Your task to perform on an android device: uninstall "Expedia: Hotels, Flights & Car" Image 0: 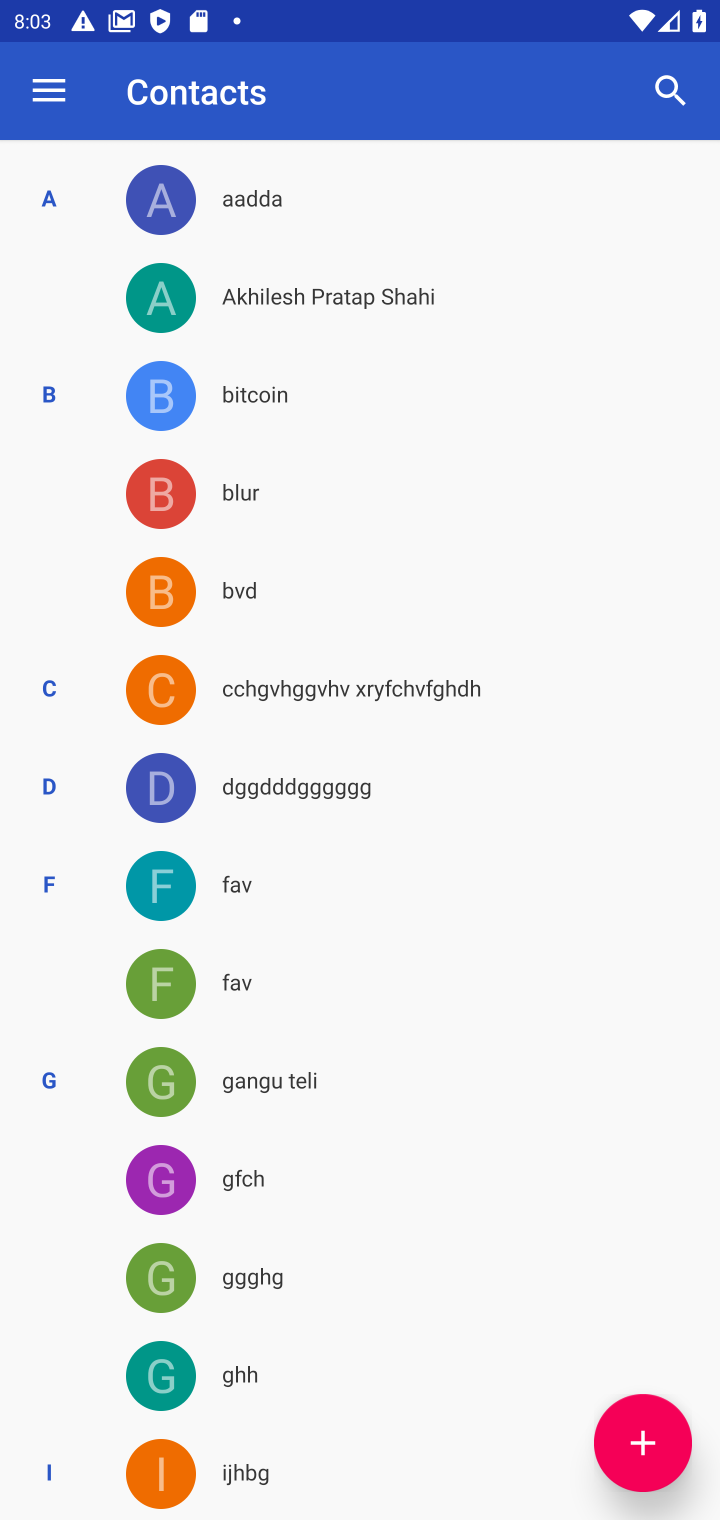
Step 0: press home button
Your task to perform on an android device: uninstall "Expedia: Hotels, Flights & Car" Image 1: 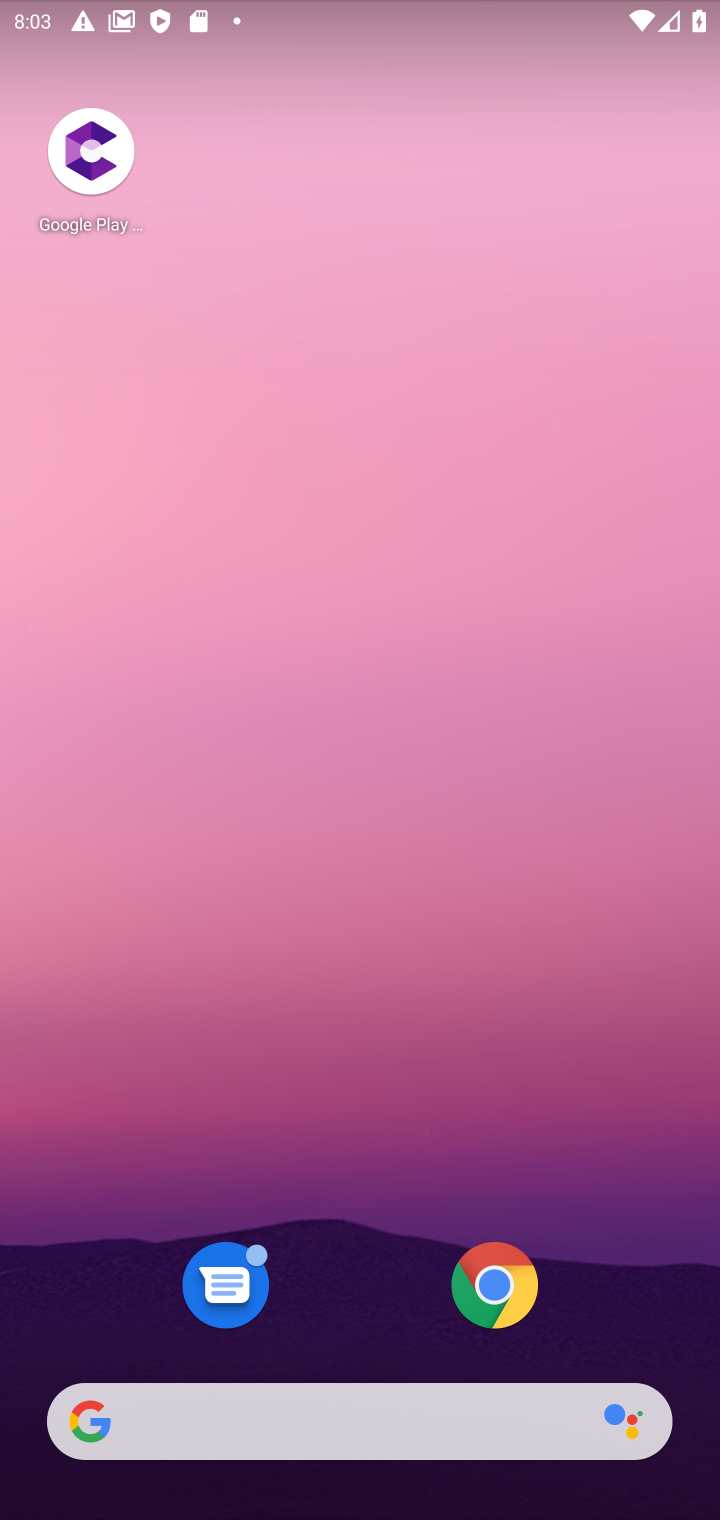
Step 1: drag from (337, 1403) to (165, 11)
Your task to perform on an android device: uninstall "Expedia: Hotels, Flights & Car" Image 2: 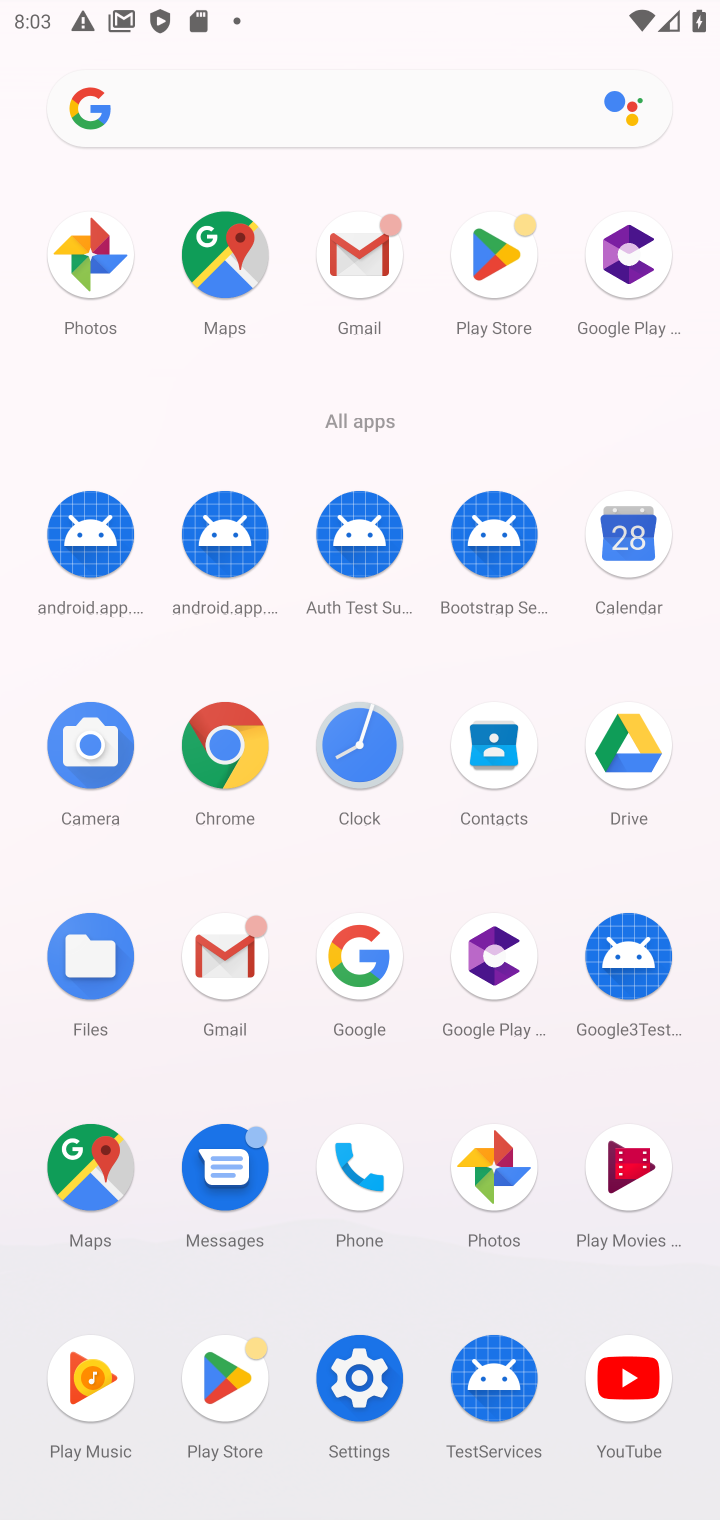
Step 2: click (228, 1356)
Your task to perform on an android device: uninstall "Expedia: Hotels, Flights & Car" Image 3: 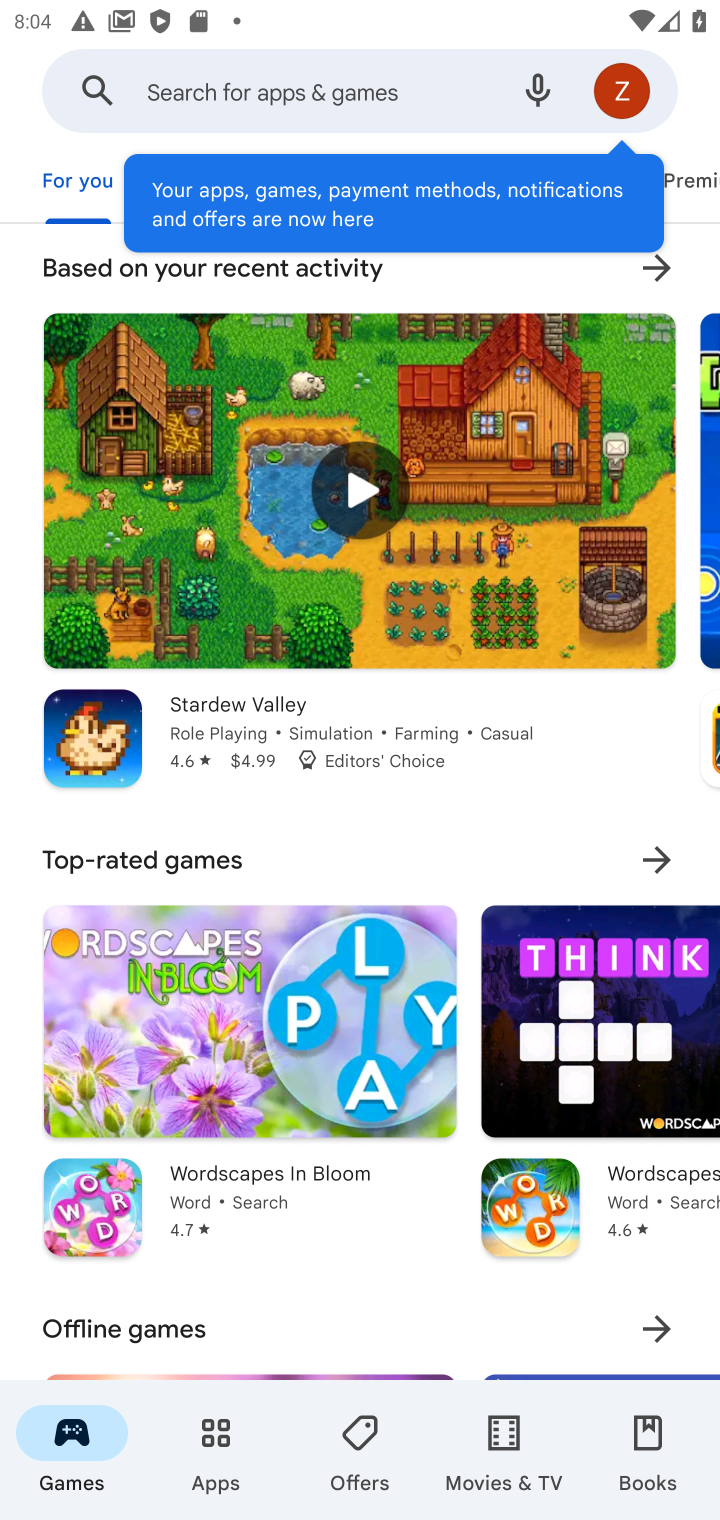
Step 3: click (342, 108)
Your task to perform on an android device: uninstall "Expedia: Hotels, Flights & Car" Image 4: 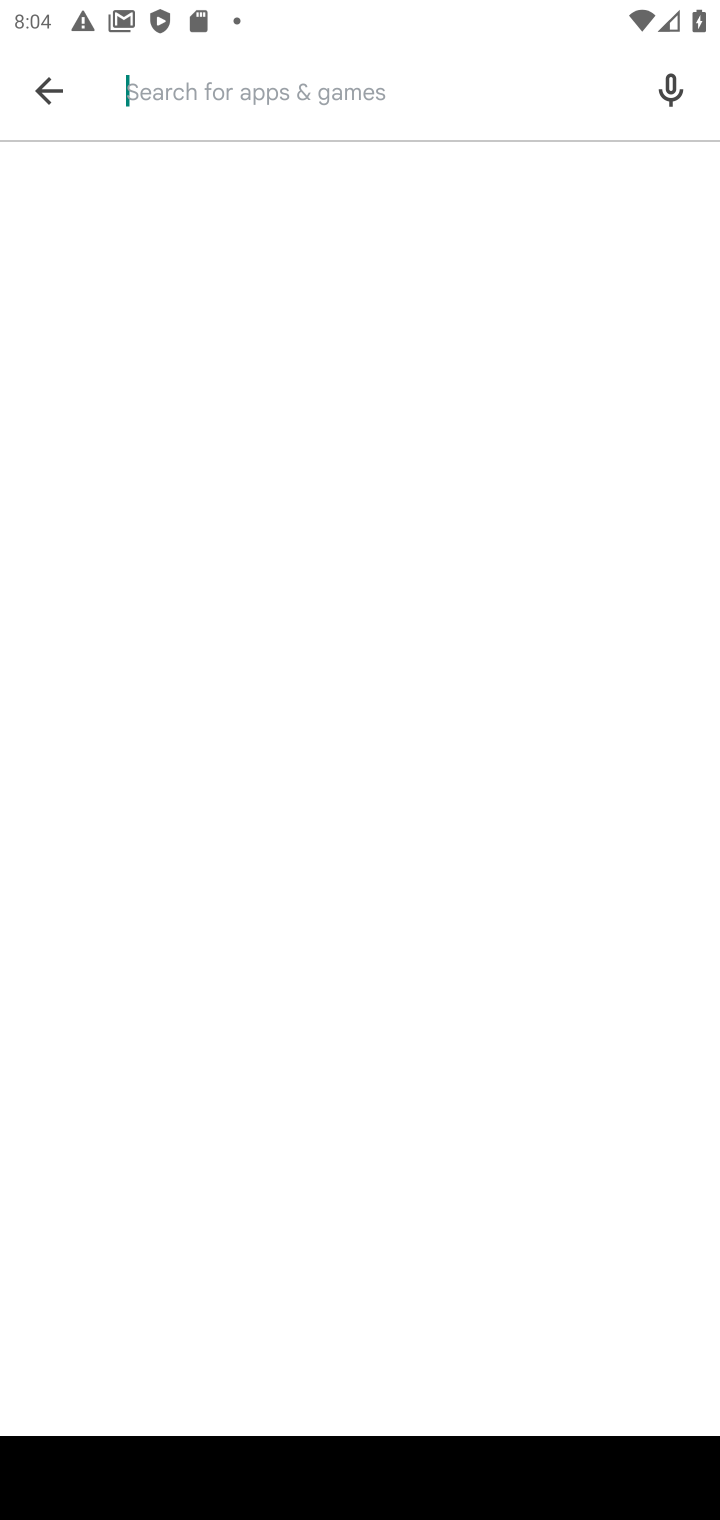
Step 4: type "Expedia: Hotels, Flights & Car"
Your task to perform on an android device: uninstall "Expedia: Hotels, Flights & Car" Image 5: 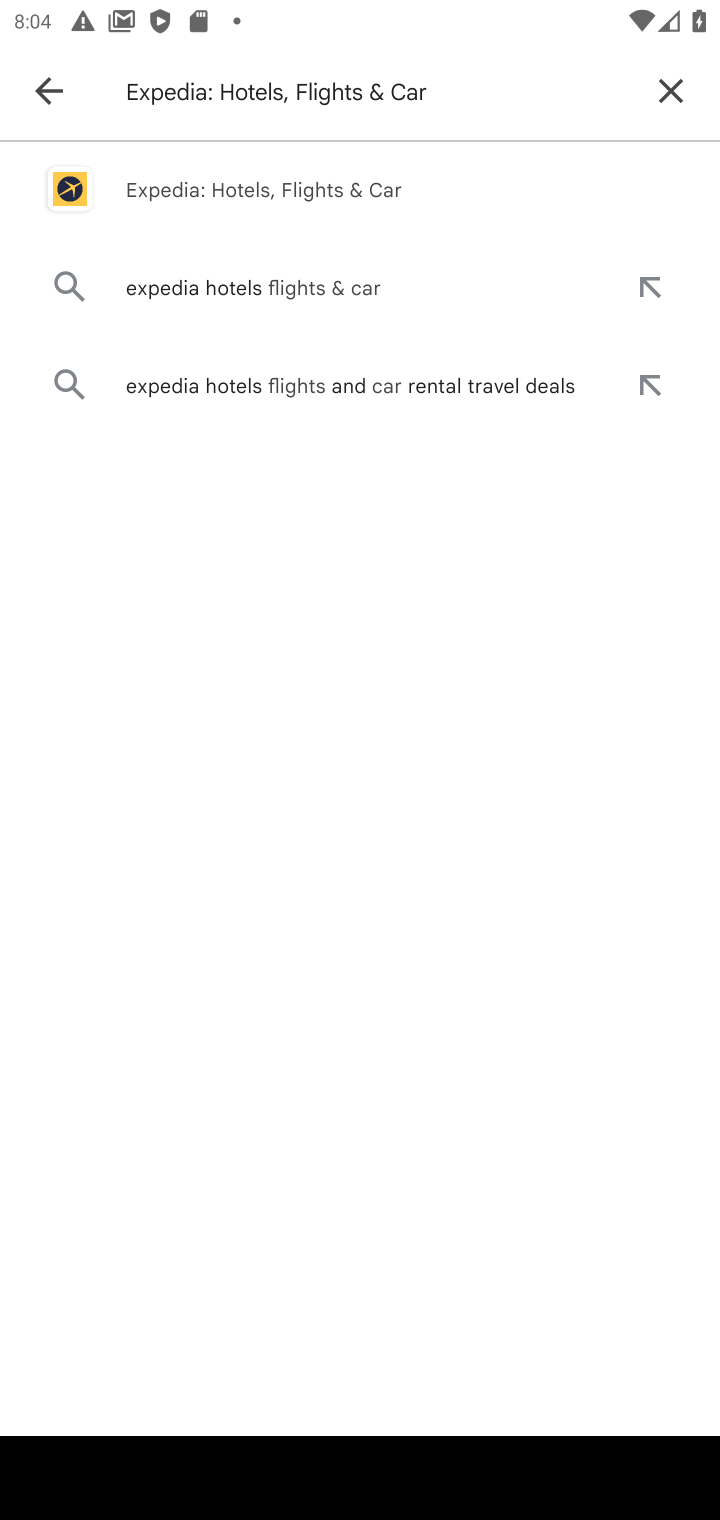
Step 5: click (213, 203)
Your task to perform on an android device: uninstall "Expedia: Hotels, Flights & Car" Image 6: 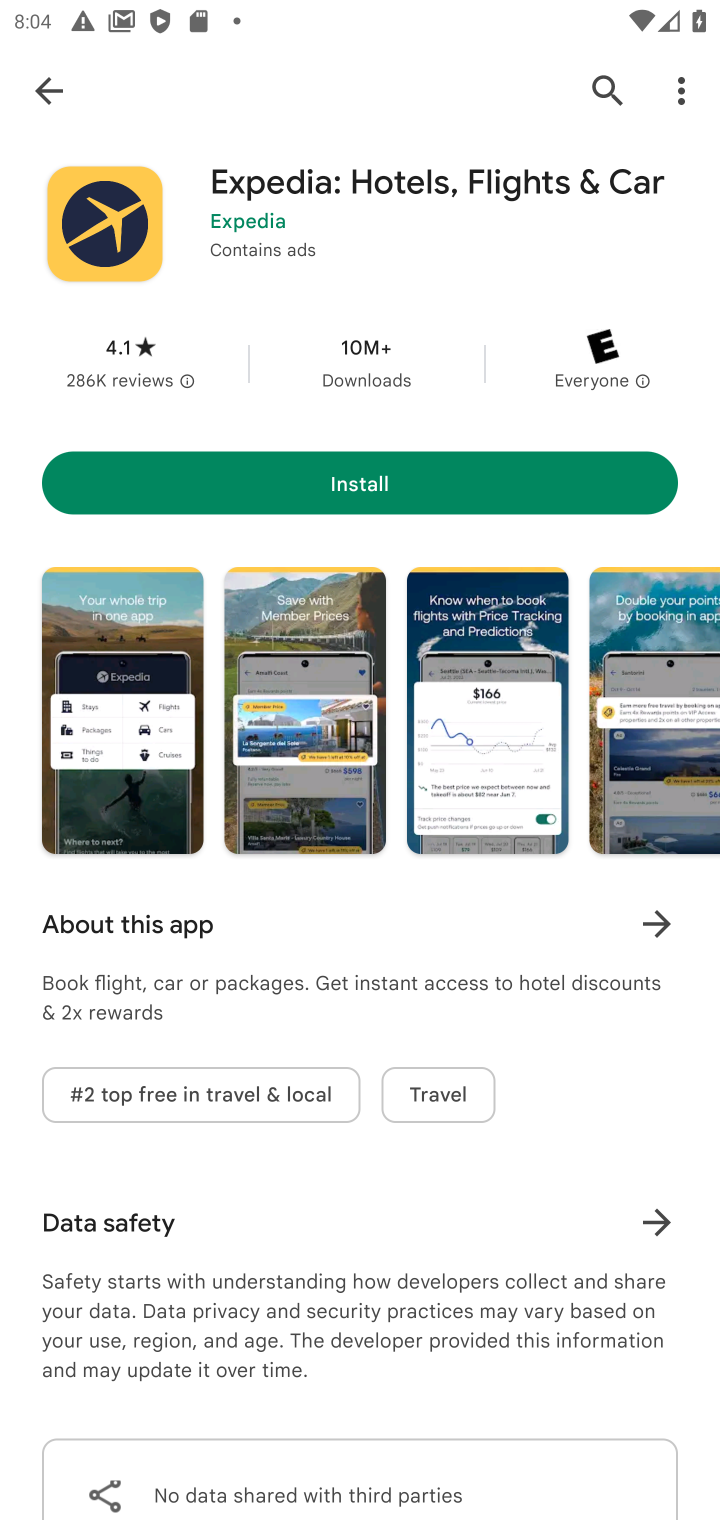
Step 6: task complete